Your task to perform on an android device: Open the map Image 0: 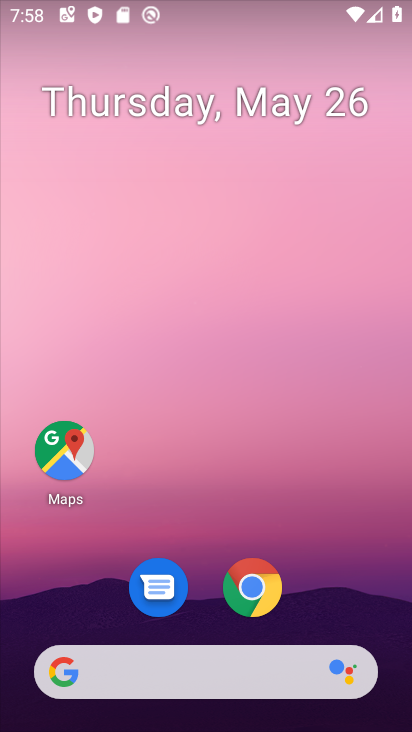
Step 0: click (69, 473)
Your task to perform on an android device: Open the map Image 1: 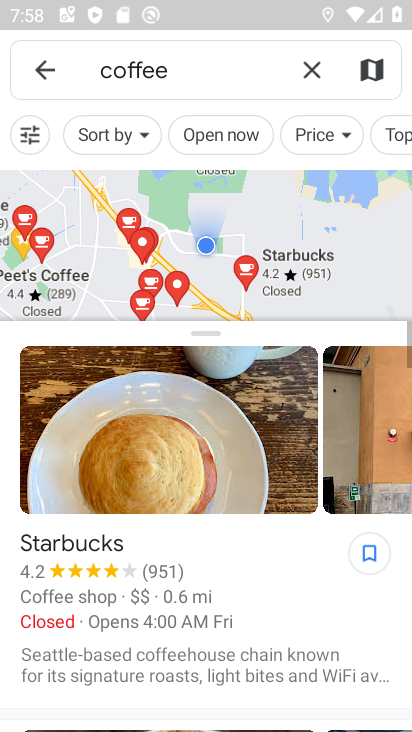
Step 1: task complete